Your task to perform on an android device: see tabs open on other devices in the chrome app Image 0: 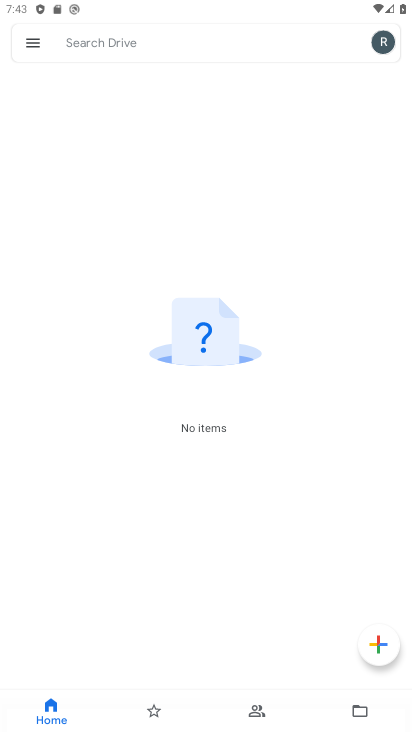
Step 0: press back button
Your task to perform on an android device: see tabs open on other devices in the chrome app Image 1: 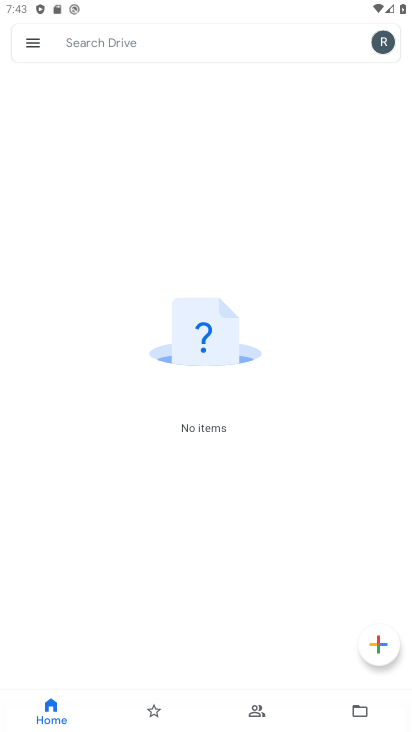
Step 1: press back button
Your task to perform on an android device: see tabs open on other devices in the chrome app Image 2: 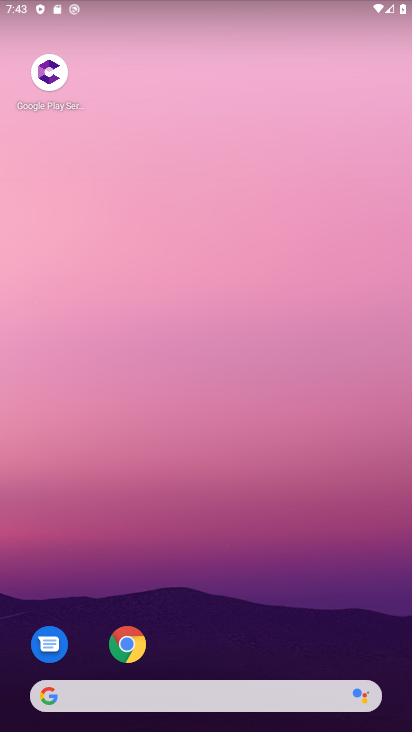
Step 2: drag from (280, 580) to (247, 3)
Your task to perform on an android device: see tabs open on other devices in the chrome app Image 3: 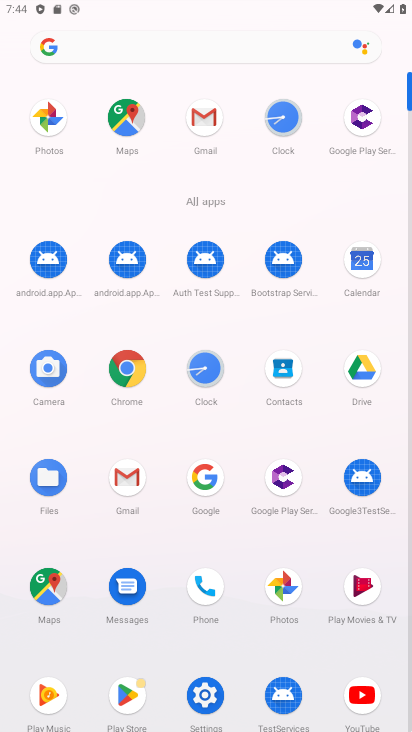
Step 3: click (119, 365)
Your task to perform on an android device: see tabs open on other devices in the chrome app Image 4: 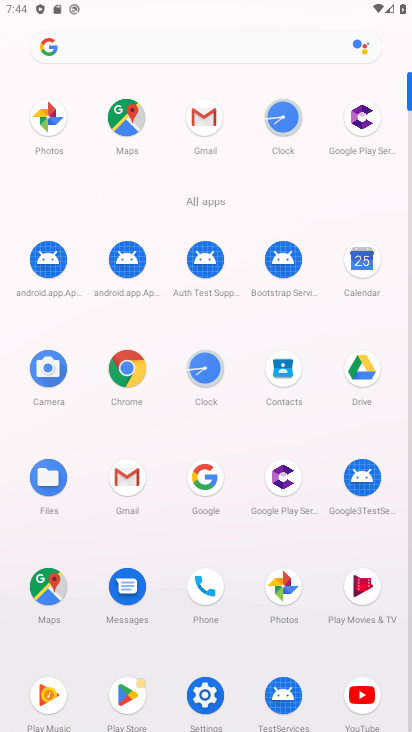
Step 4: click (119, 365)
Your task to perform on an android device: see tabs open on other devices in the chrome app Image 5: 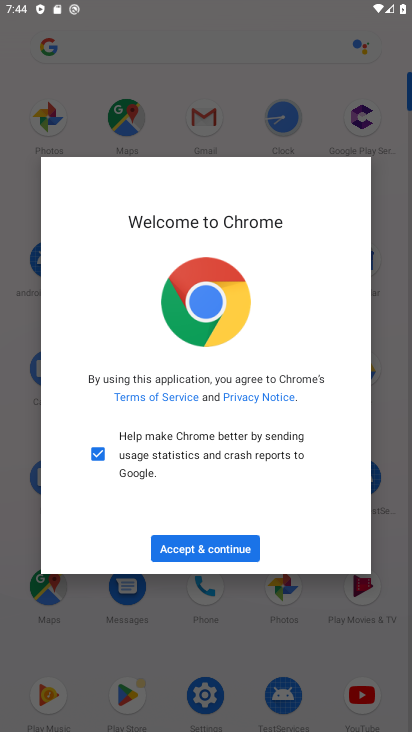
Step 5: click (229, 552)
Your task to perform on an android device: see tabs open on other devices in the chrome app Image 6: 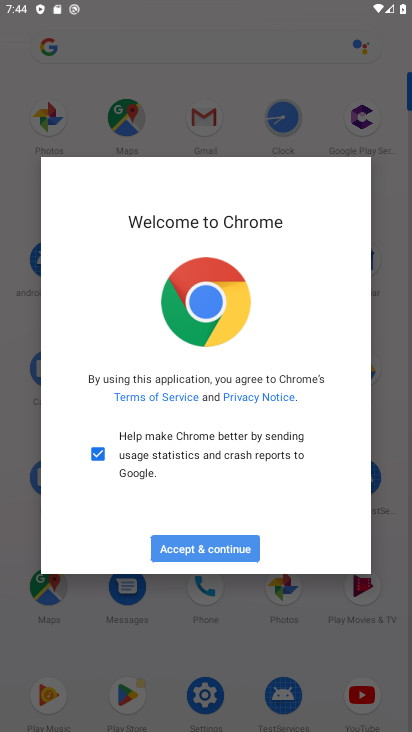
Step 6: click (229, 548)
Your task to perform on an android device: see tabs open on other devices in the chrome app Image 7: 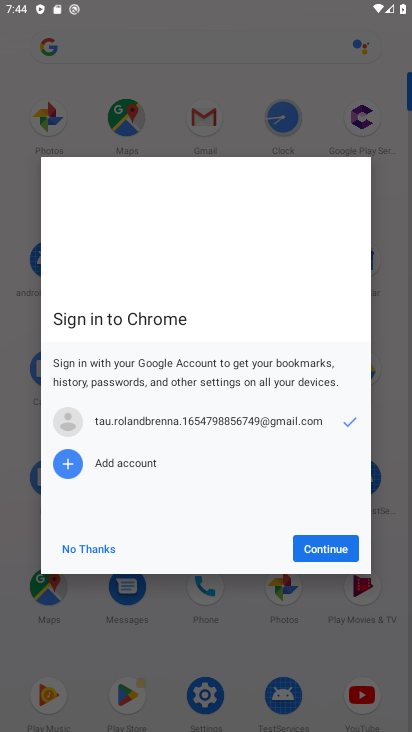
Step 7: click (229, 548)
Your task to perform on an android device: see tabs open on other devices in the chrome app Image 8: 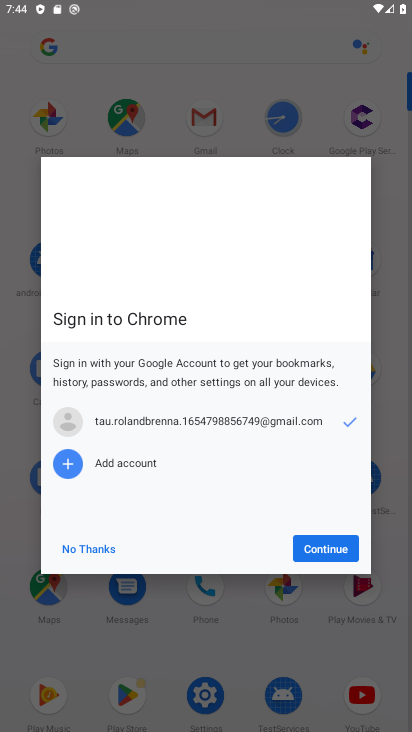
Step 8: click (87, 549)
Your task to perform on an android device: see tabs open on other devices in the chrome app Image 9: 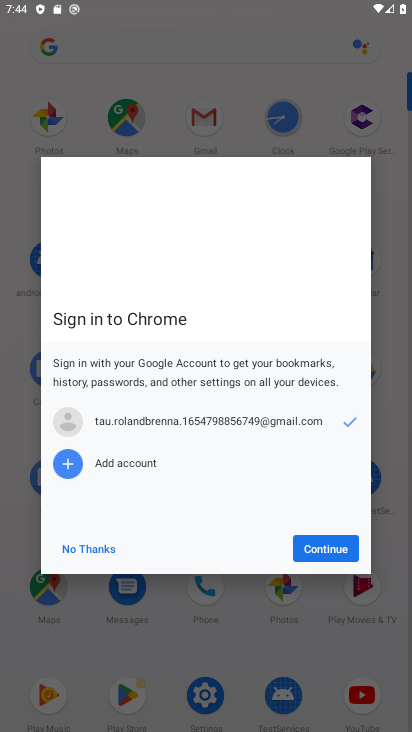
Step 9: click (87, 543)
Your task to perform on an android device: see tabs open on other devices in the chrome app Image 10: 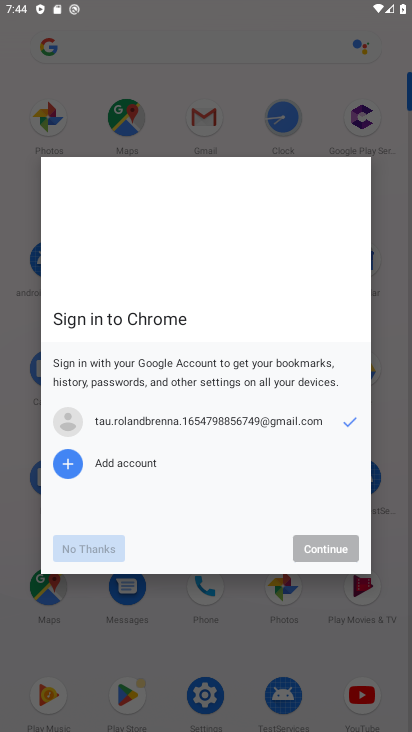
Step 10: click (87, 543)
Your task to perform on an android device: see tabs open on other devices in the chrome app Image 11: 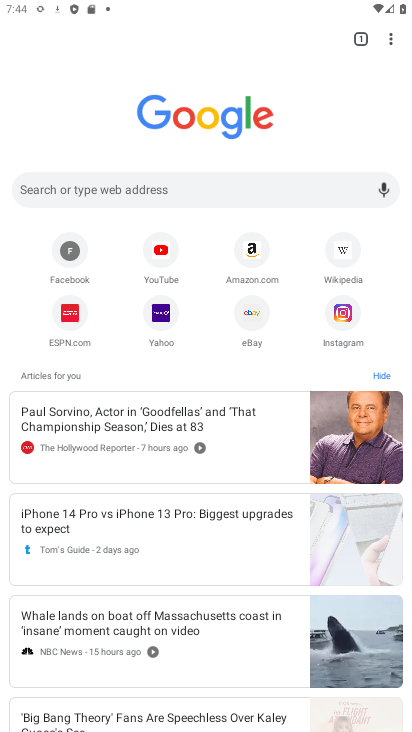
Step 11: drag from (387, 39) to (241, 187)
Your task to perform on an android device: see tabs open on other devices in the chrome app Image 12: 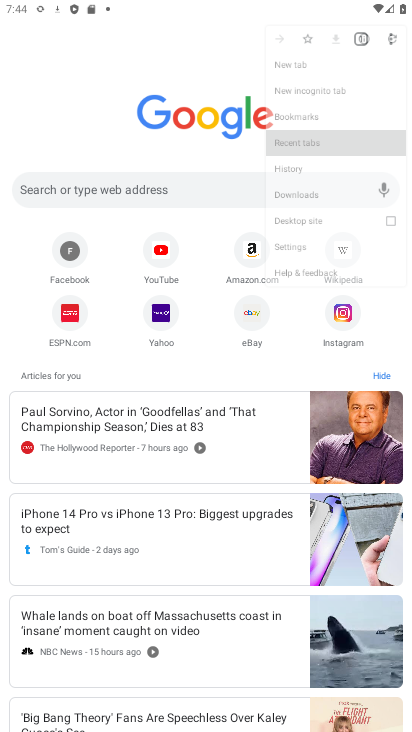
Step 12: click (240, 189)
Your task to perform on an android device: see tabs open on other devices in the chrome app Image 13: 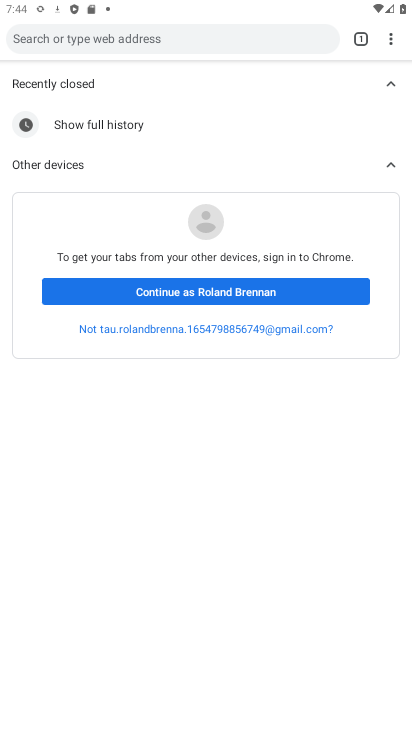
Step 13: task complete